Your task to perform on an android device: Search for Italian restaurants on Maps Image 0: 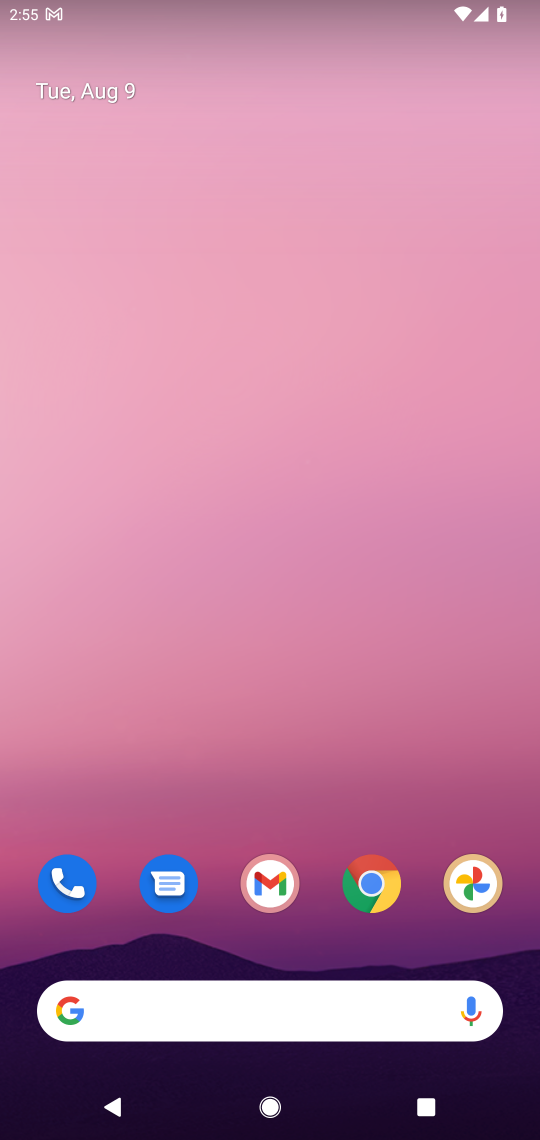
Step 0: drag from (429, 955) to (421, 121)
Your task to perform on an android device: Search for Italian restaurants on Maps Image 1: 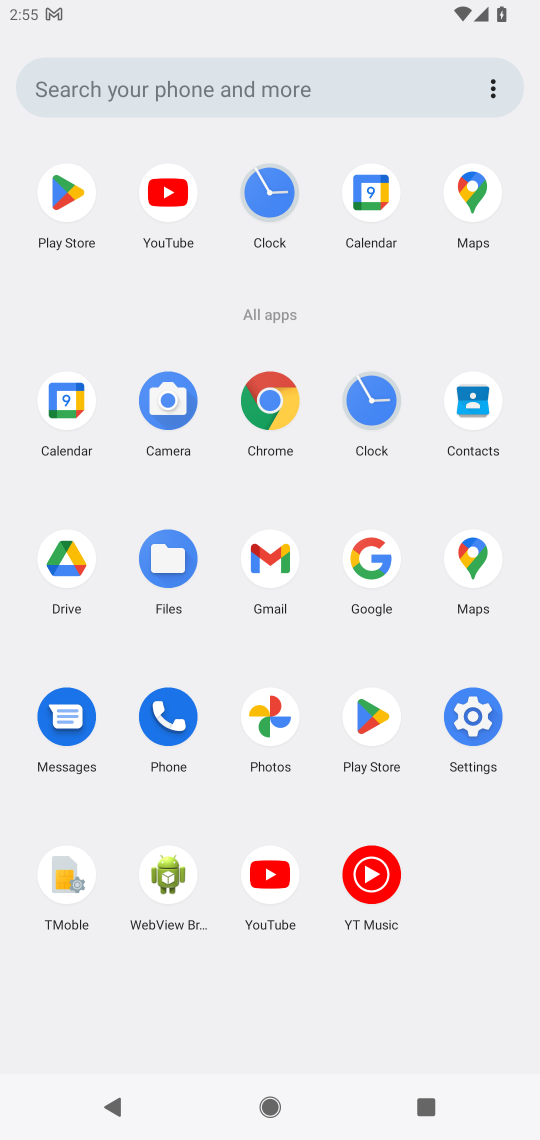
Step 1: click (475, 555)
Your task to perform on an android device: Search for Italian restaurants on Maps Image 2: 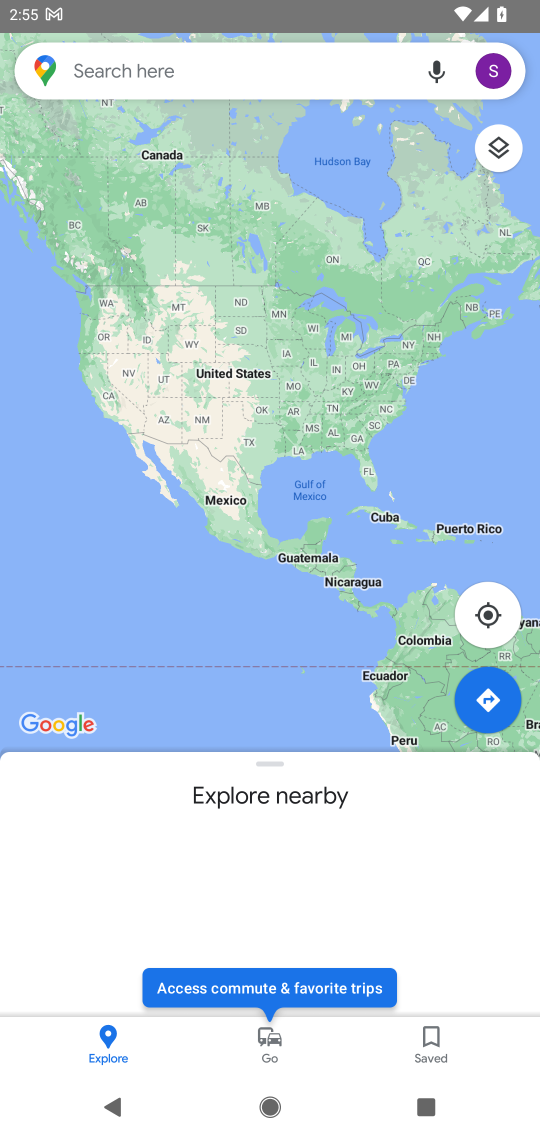
Step 2: click (153, 62)
Your task to perform on an android device: Search for Italian restaurants on Maps Image 3: 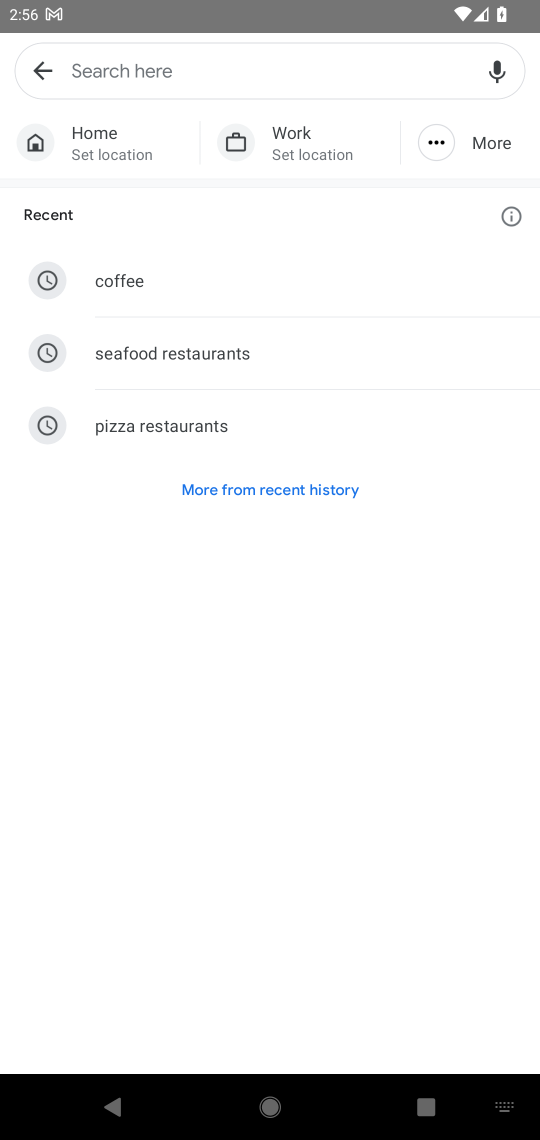
Step 3: type "italian restaurants"
Your task to perform on an android device: Search for Italian restaurants on Maps Image 4: 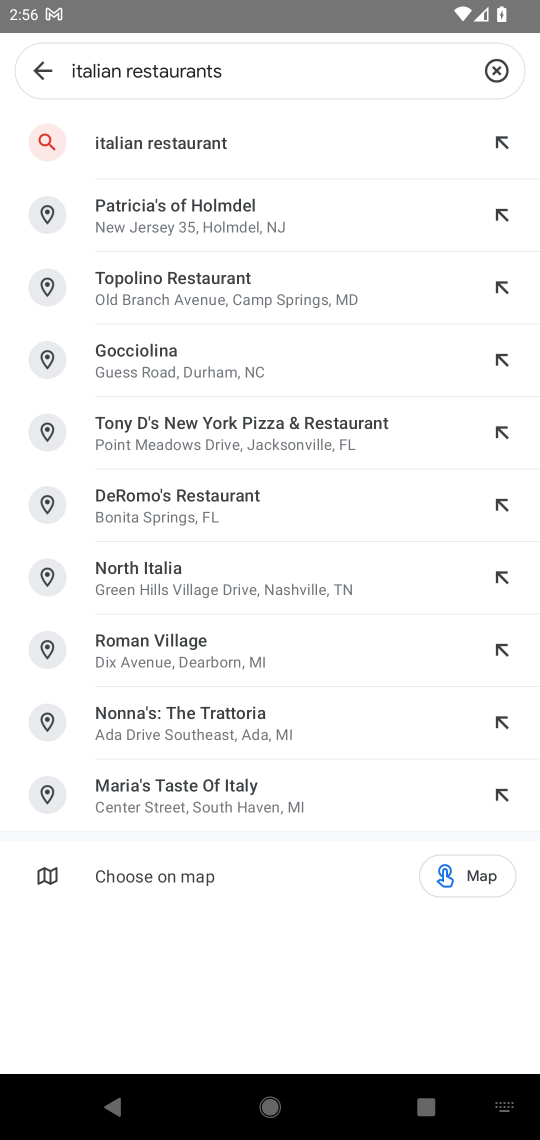
Step 4: click (131, 132)
Your task to perform on an android device: Search for Italian restaurants on Maps Image 5: 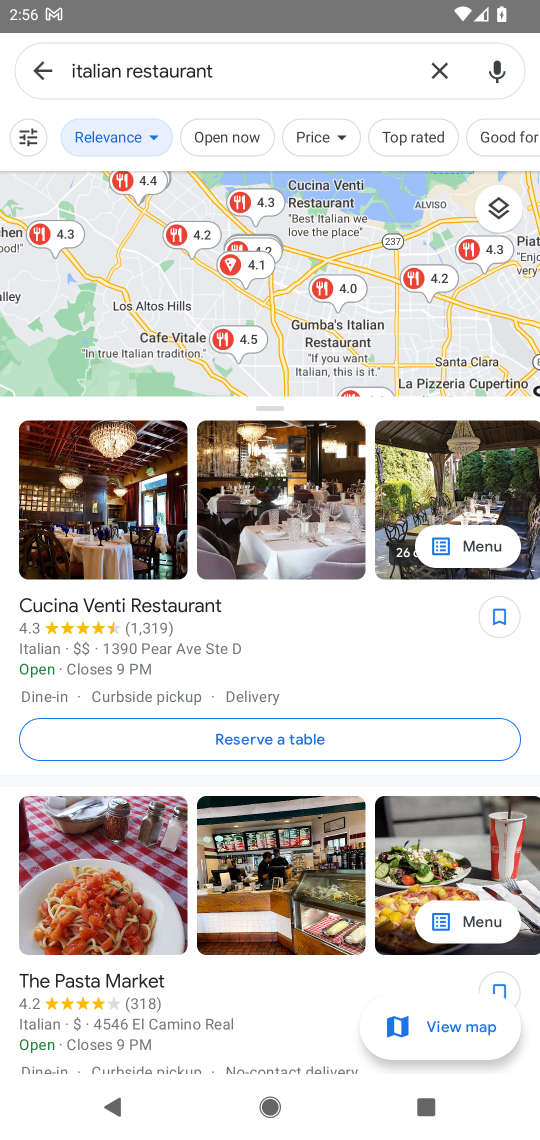
Step 5: task complete